Your task to perform on an android device: Show me popular games on the Play Store Image 0: 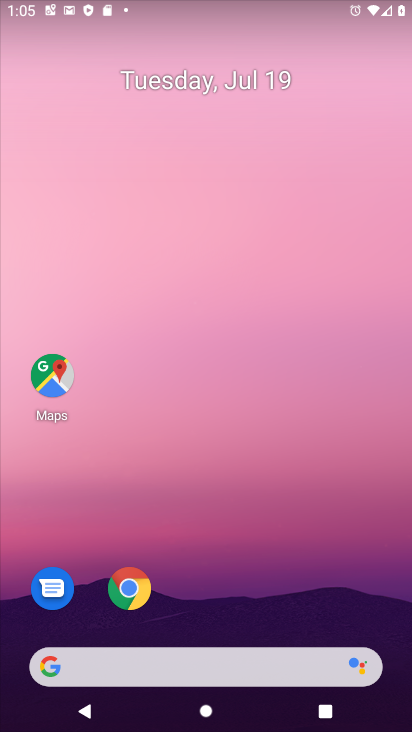
Step 0: drag from (299, 432) to (192, 43)
Your task to perform on an android device: Show me popular games on the Play Store Image 1: 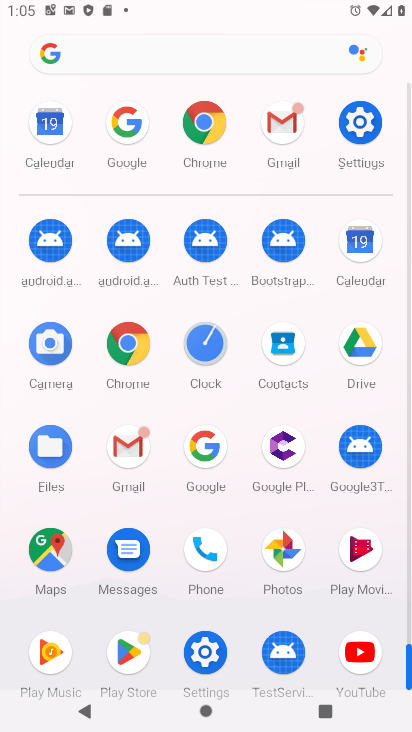
Step 1: click (111, 636)
Your task to perform on an android device: Show me popular games on the Play Store Image 2: 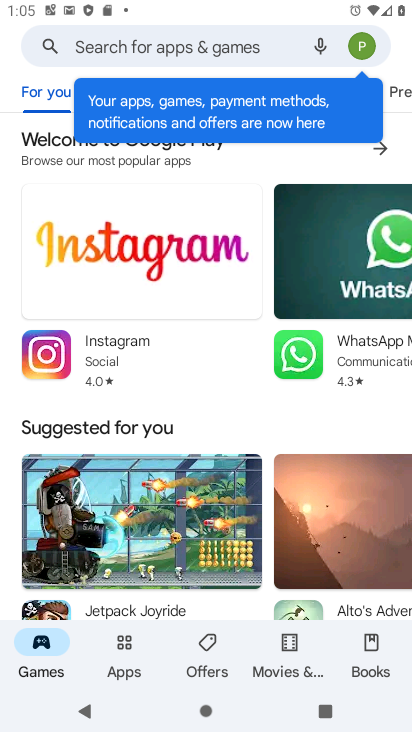
Step 2: click (137, 46)
Your task to perform on an android device: Show me popular games on the Play Store Image 3: 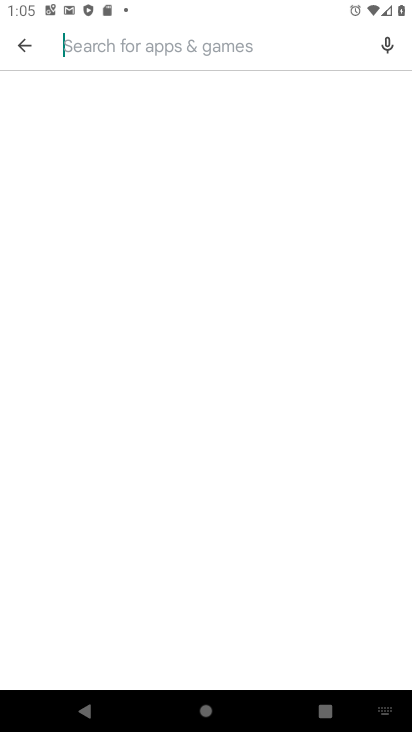
Step 3: type "popular games"
Your task to perform on an android device: Show me popular games on the Play Store Image 4: 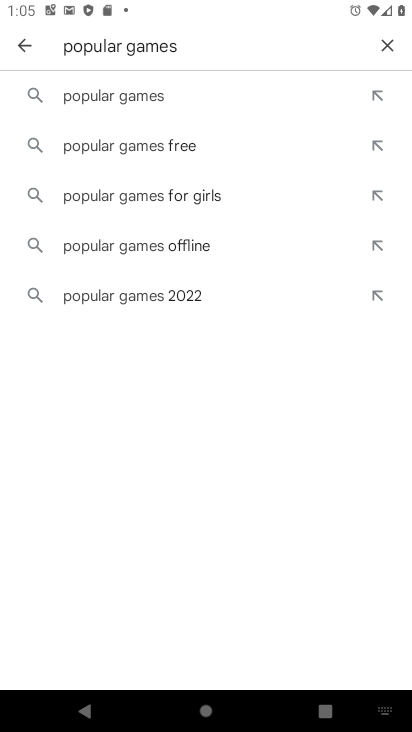
Step 4: click (149, 110)
Your task to perform on an android device: Show me popular games on the Play Store Image 5: 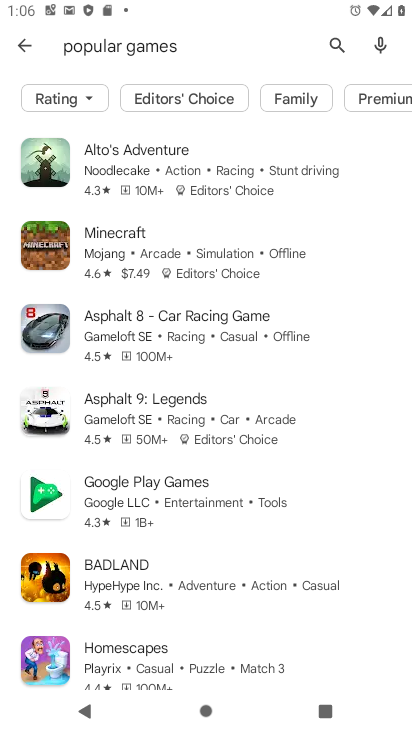
Step 5: task complete